Your task to perform on an android device: Empty the shopping cart on target. Search for asus rog on target, select the first entry, and add it to the cart. Image 0: 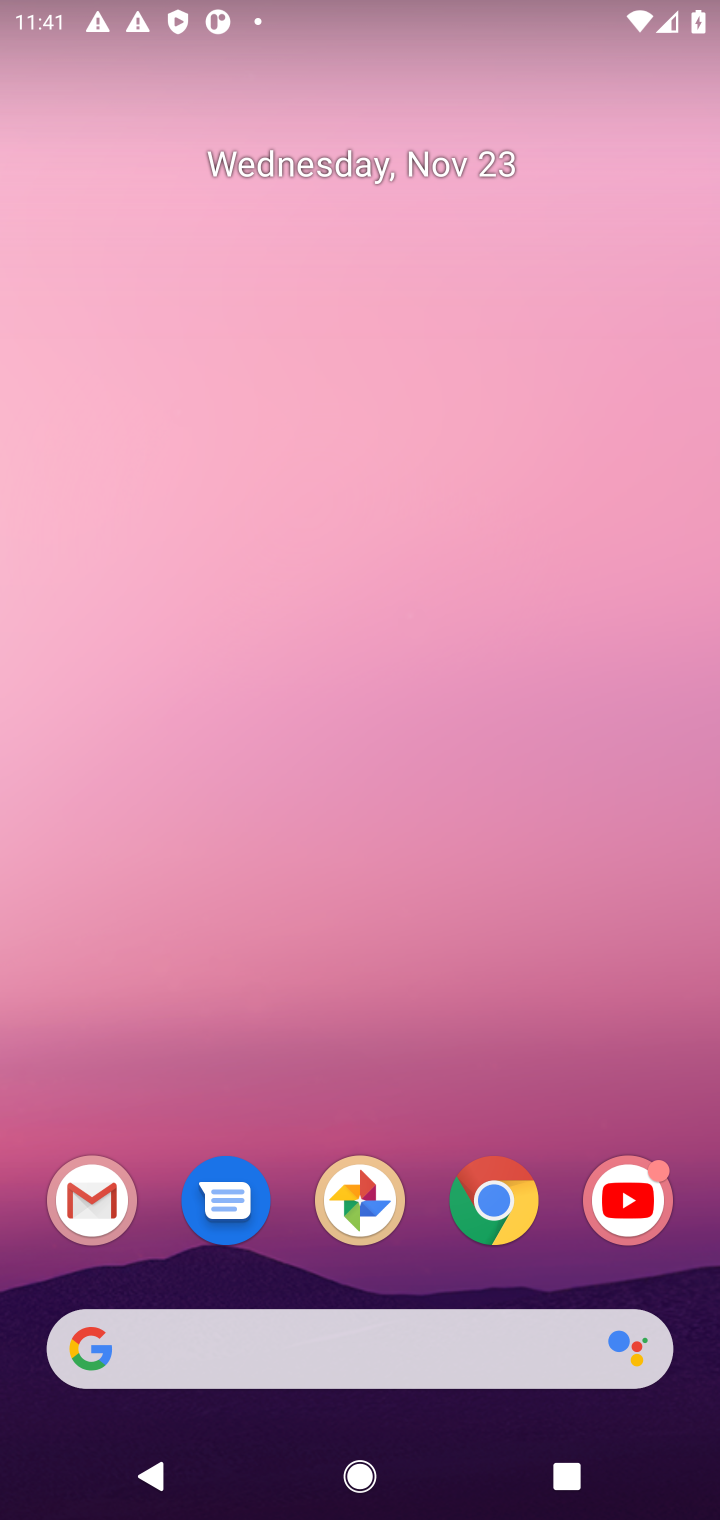
Step 0: click (313, 1371)
Your task to perform on an android device: Empty the shopping cart on target. Search for asus rog on target, select the first entry, and add it to the cart. Image 1: 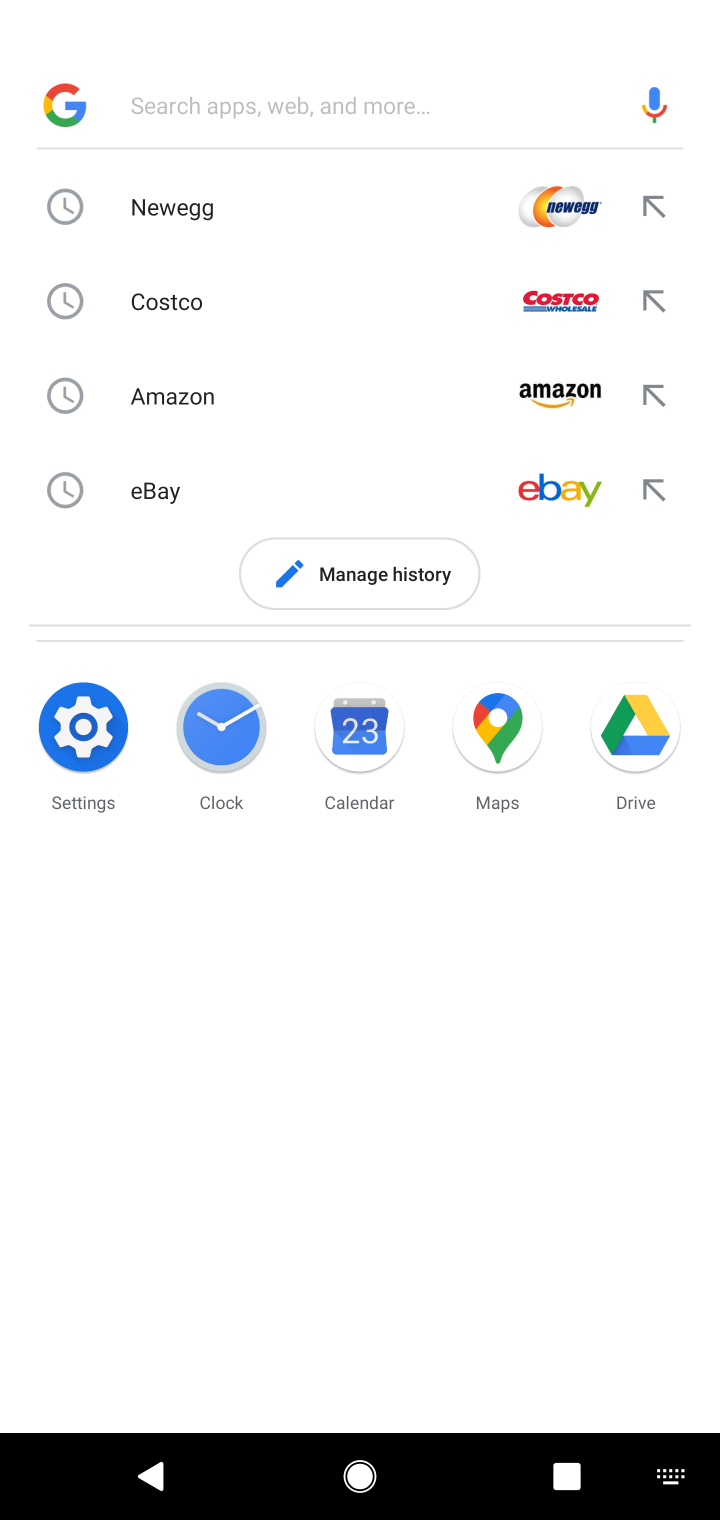
Step 1: task complete